Your task to perform on an android device: Go to location settings Image 0: 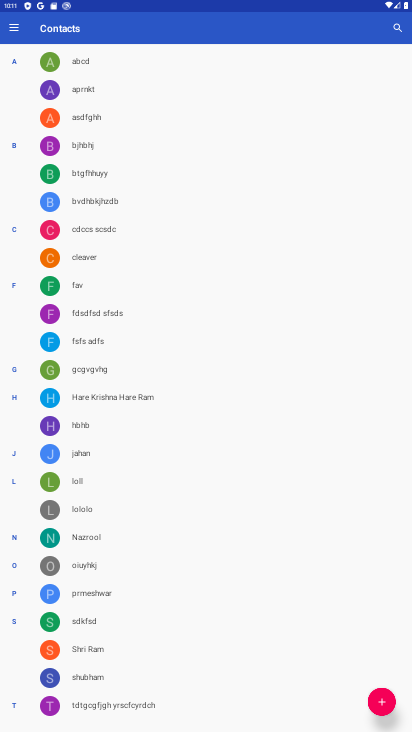
Step 0: press home button
Your task to perform on an android device: Go to location settings Image 1: 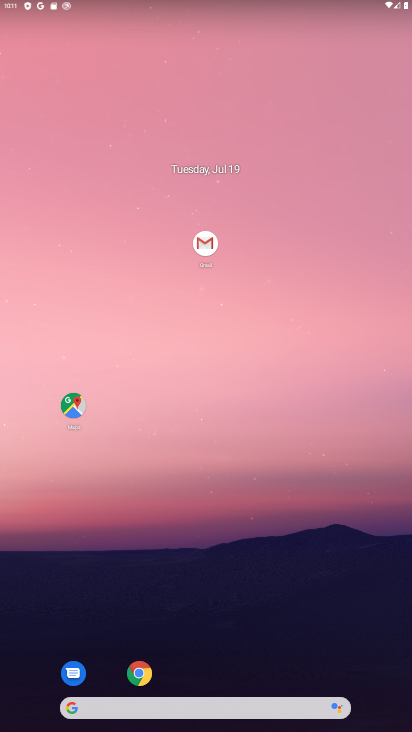
Step 1: drag from (325, 637) to (165, 38)
Your task to perform on an android device: Go to location settings Image 2: 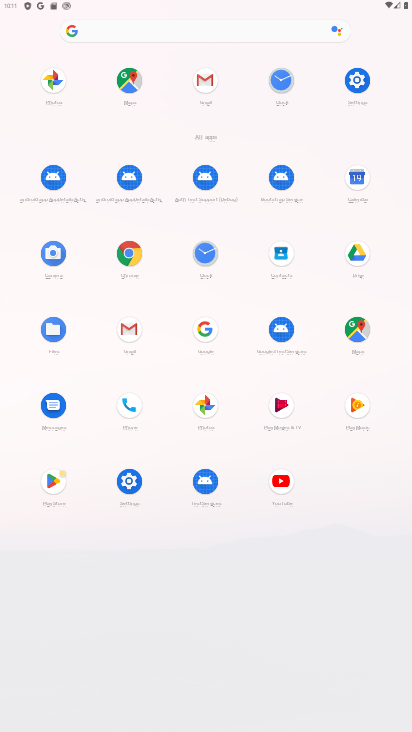
Step 2: click (123, 471)
Your task to perform on an android device: Go to location settings Image 3: 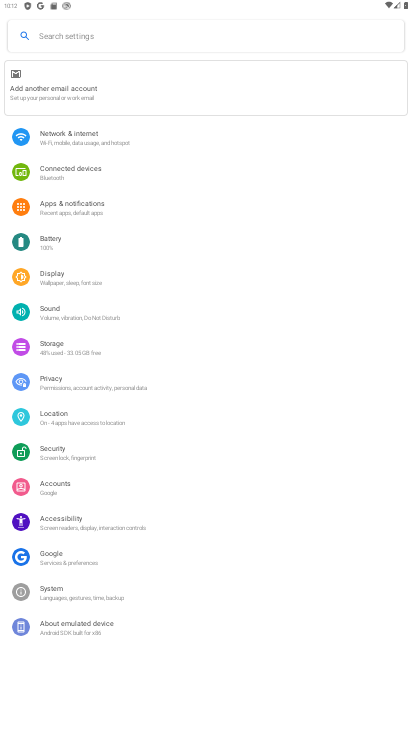
Step 3: click (54, 416)
Your task to perform on an android device: Go to location settings Image 4: 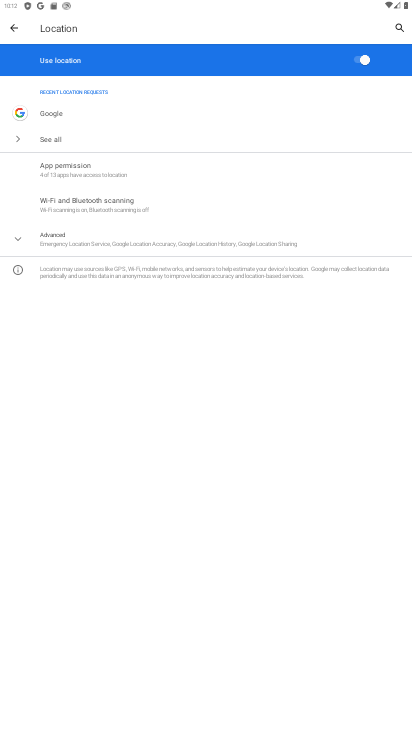
Step 4: task complete